Your task to perform on an android device: Open internet settings Image 0: 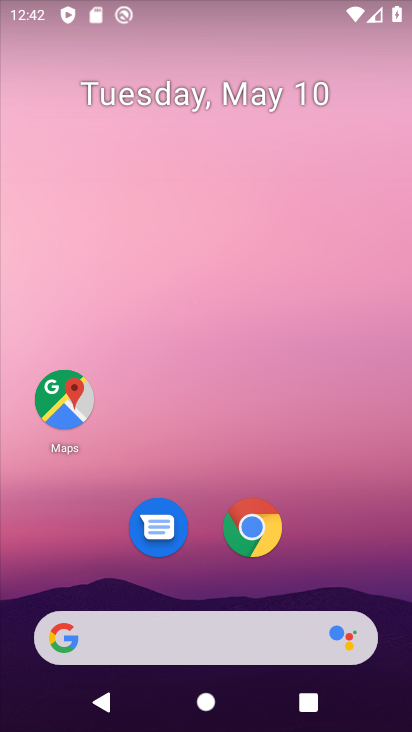
Step 0: drag from (326, 566) to (331, 162)
Your task to perform on an android device: Open internet settings Image 1: 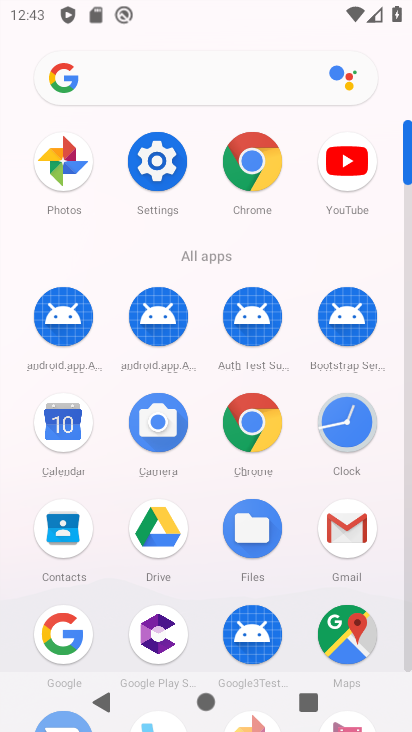
Step 1: click (180, 170)
Your task to perform on an android device: Open internet settings Image 2: 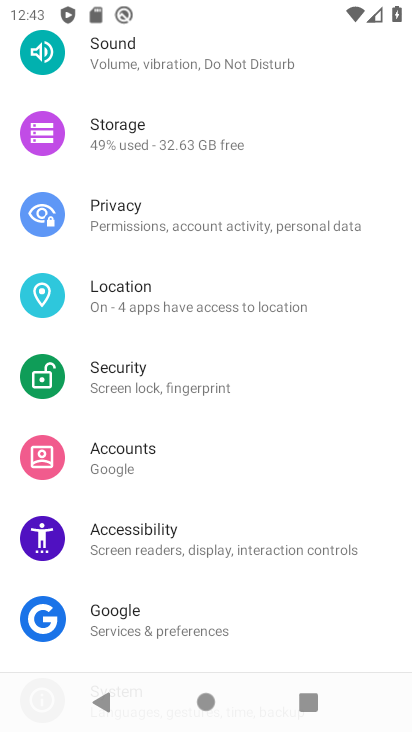
Step 2: drag from (201, 199) to (241, 616)
Your task to perform on an android device: Open internet settings Image 3: 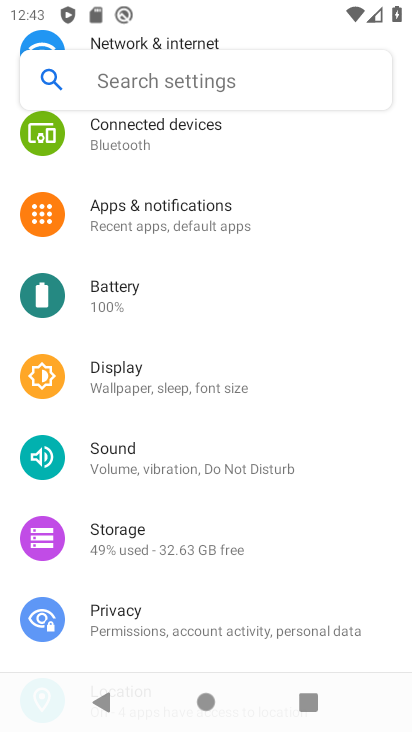
Step 3: drag from (257, 256) to (260, 533)
Your task to perform on an android device: Open internet settings Image 4: 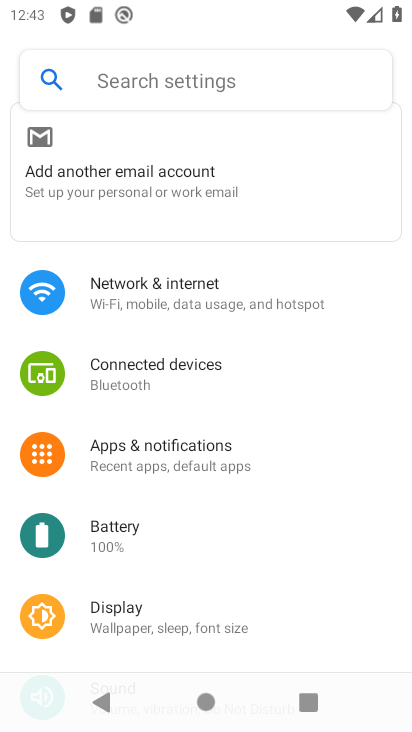
Step 4: click (216, 277)
Your task to perform on an android device: Open internet settings Image 5: 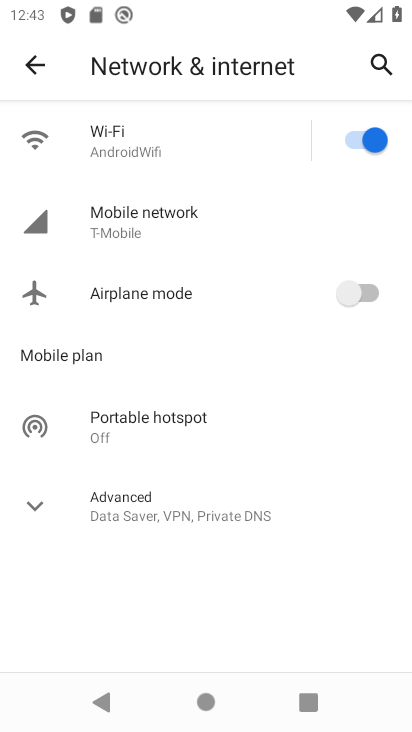
Step 5: task complete